Your task to perform on an android device: Open calendar and show me the first week of next month Image 0: 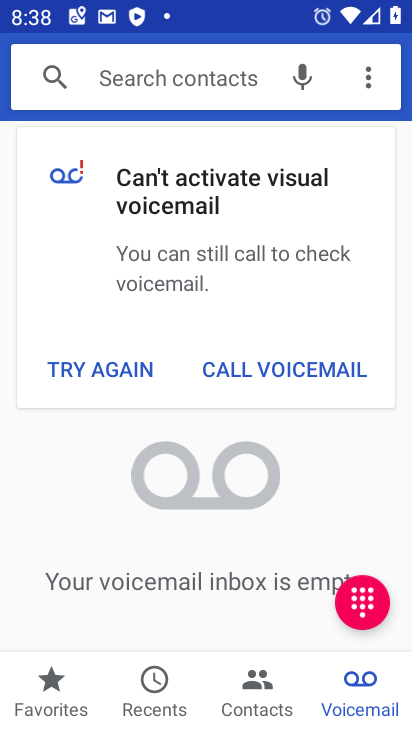
Step 0: press home button
Your task to perform on an android device: Open calendar and show me the first week of next month Image 1: 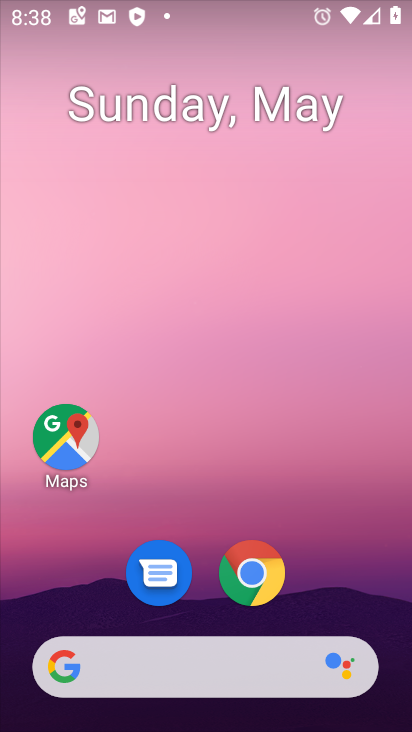
Step 1: drag from (253, 491) to (279, 2)
Your task to perform on an android device: Open calendar and show me the first week of next month Image 2: 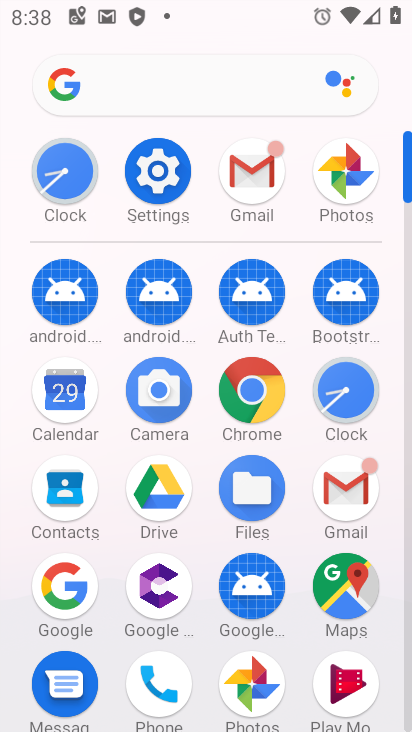
Step 2: click (68, 394)
Your task to perform on an android device: Open calendar and show me the first week of next month Image 3: 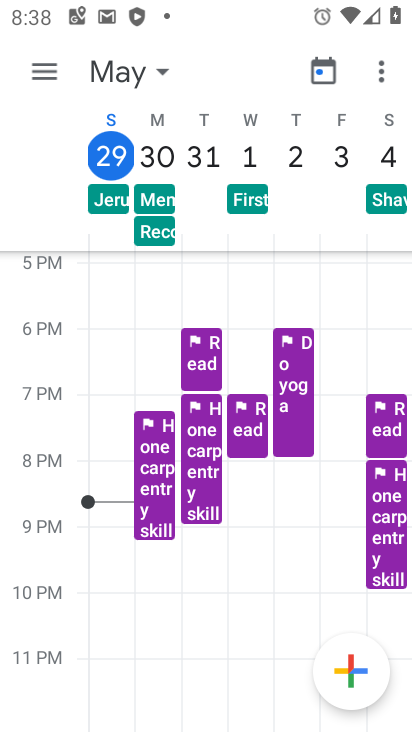
Step 3: task complete